Your task to perform on an android device: turn on notifications settings in the gmail app Image 0: 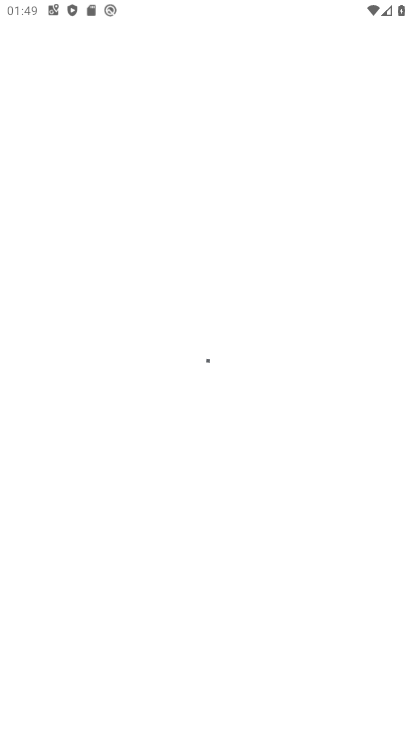
Step 0: press home button
Your task to perform on an android device: turn on notifications settings in the gmail app Image 1: 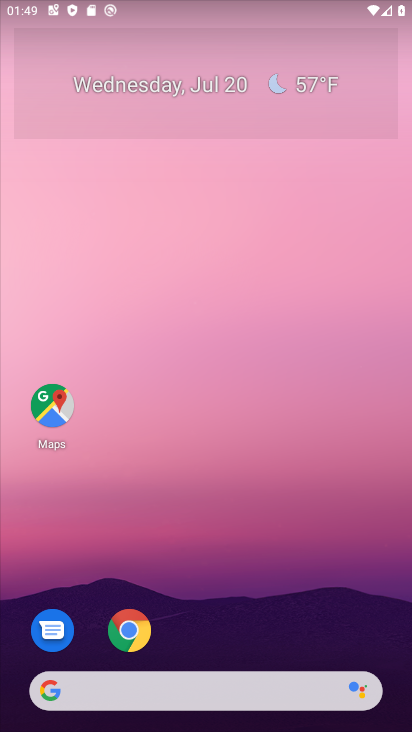
Step 1: drag from (275, 538) to (283, 62)
Your task to perform on an android device: turn on notifications settings in the gmail app Image 2: 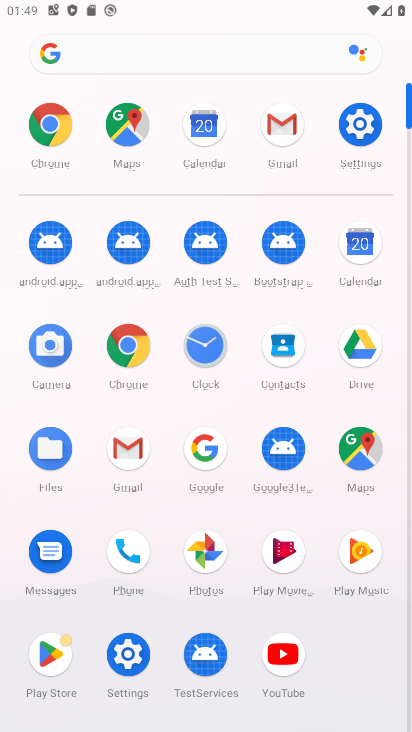
Step 2: click (292, 127)
Your task to perform on an android device: turn on notifications settings in the gmail app Image 3: 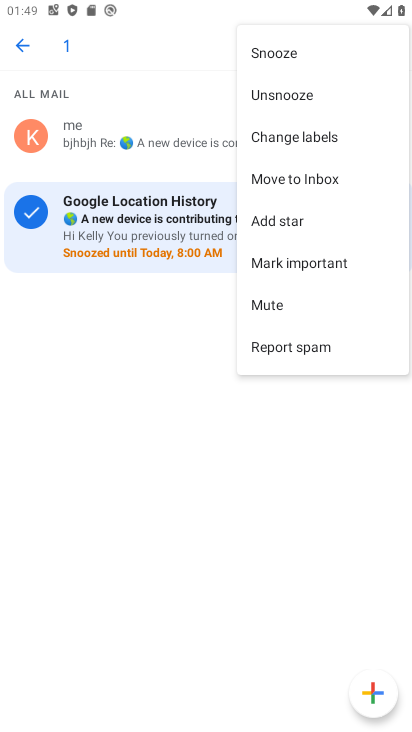
Step 3: click (155, 389)
Your task to perform on an android device: turn on notifications settings in the gmail app Image 4: 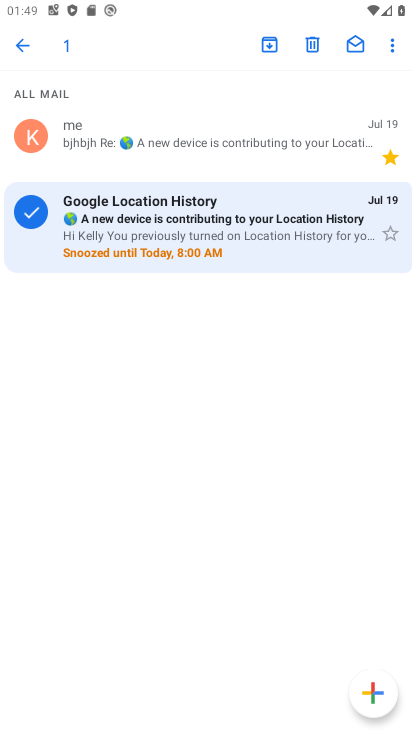
Step 4: click (31, 39)
Your task to perform on an android device: turn on notifications settings in the gmail app Image 5: 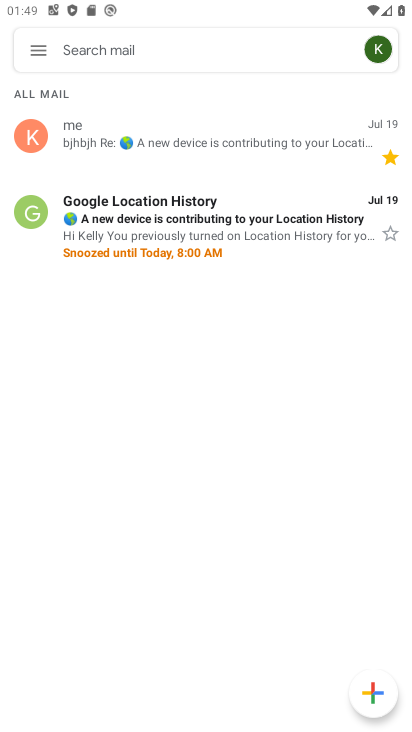
Step 5: click (31, 38)
Your task to perform on an android device: turn on notifications settings in the gmail app Image 6: 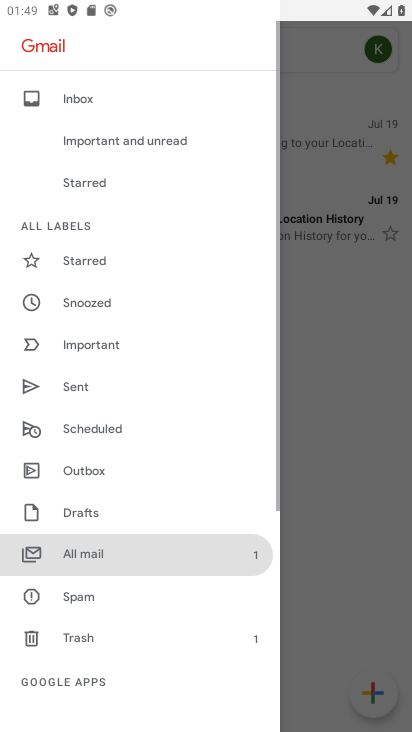
Step 6: drag from (117, 612) to (181, 72)
Your task to perform on an android device: turn on notifications settings in the gmail app Image 7: 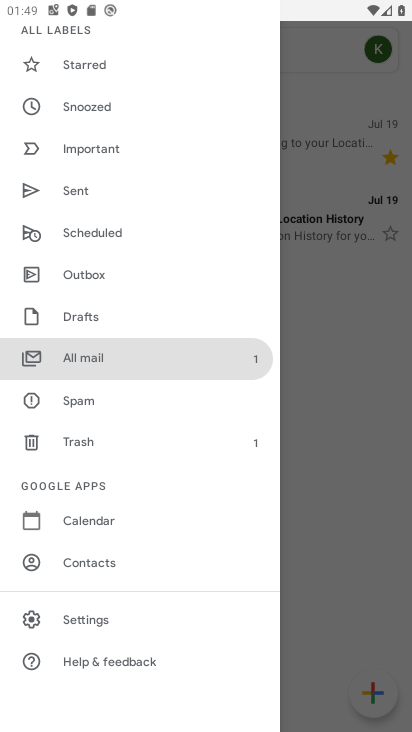
Step 7: click (108, 614)
Your task to perform on an android device: turn on notifications settings in the gmail app Image 8: 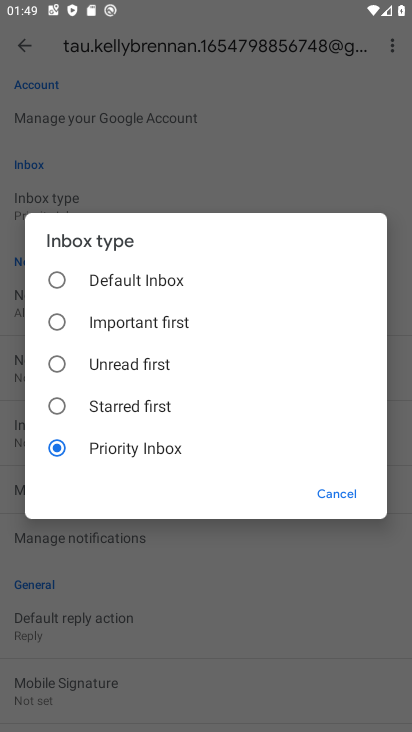
Step 8: click (357, 489)
Your task to perform on an android device: turn on notifications settings in the gmail app Image 9: 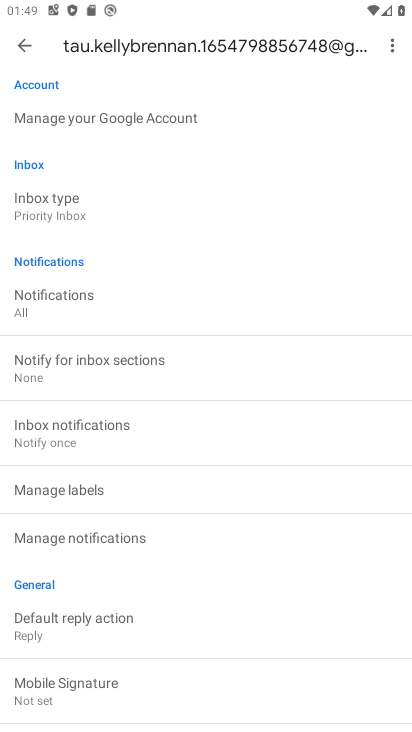
Step 9: click (101, 542)
Your task to perform on an android device: turn on notifications settings in the gmail app Image 10: 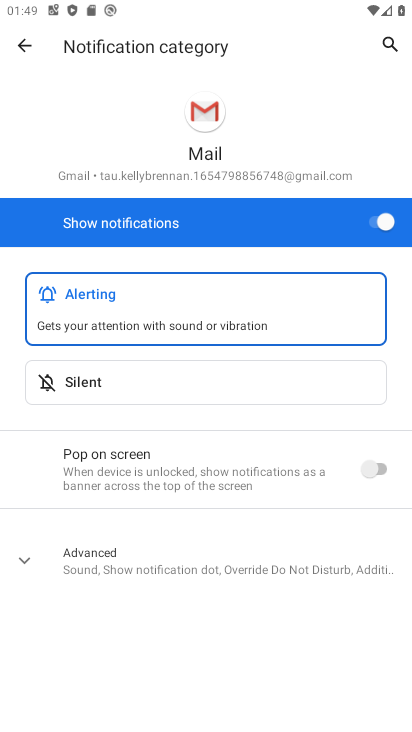
Step 10: task complete